Your task to perform on an android device: turn off location Image 0: 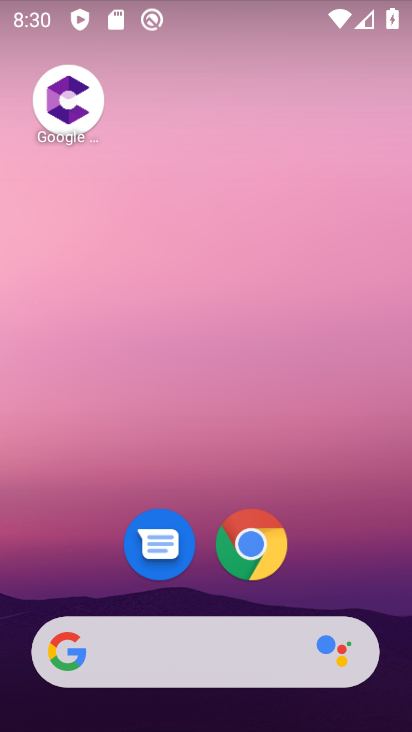
Step 0: drag from (310, 527) to (306, 9)
Your task to perform on an android device: turn off location Image 1: 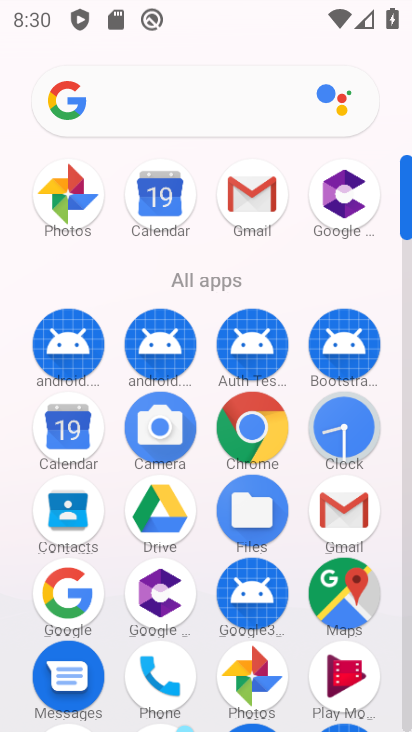
Step 1: drag from (207, 549) to (245, 153)
Your task to perform on an android device: turn off location Image 2: 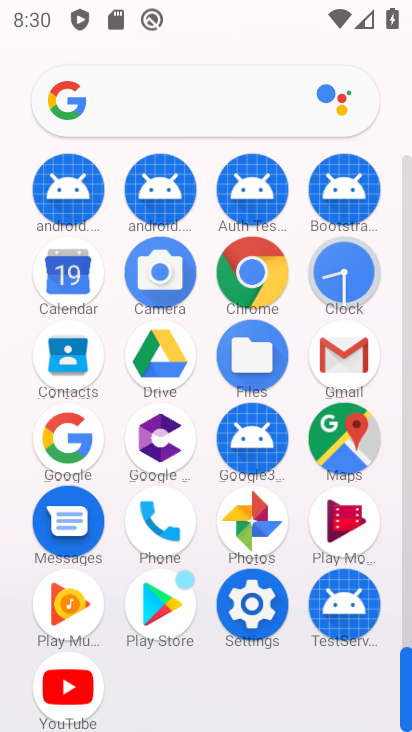
Step 2: click (254, 599)
Your task to perform on an android device: turn off location Image 3: 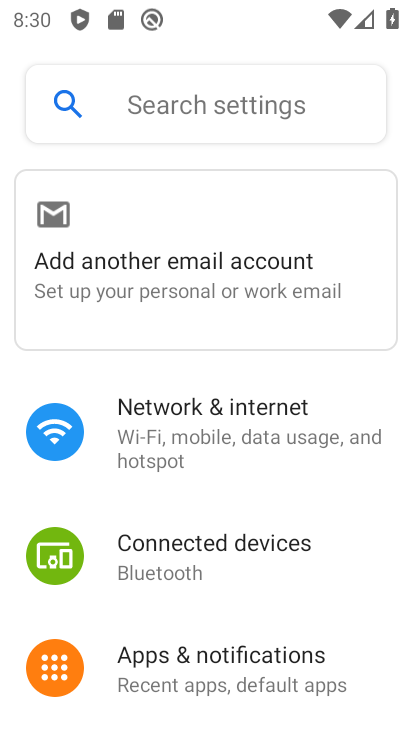
Step 3: drag from (252, 514) to (228, 186)
Your task to perform on an android device: turn off location Image 4: 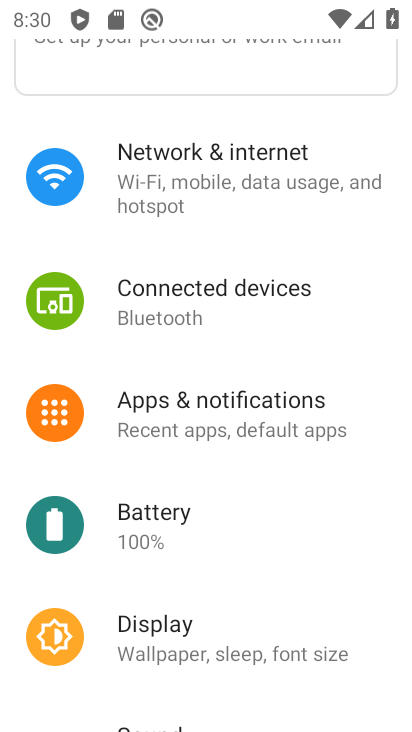
Step 4: drag from (231, 577) to (176, 146)
Your task to perform on an android device: turn off location Image 5: 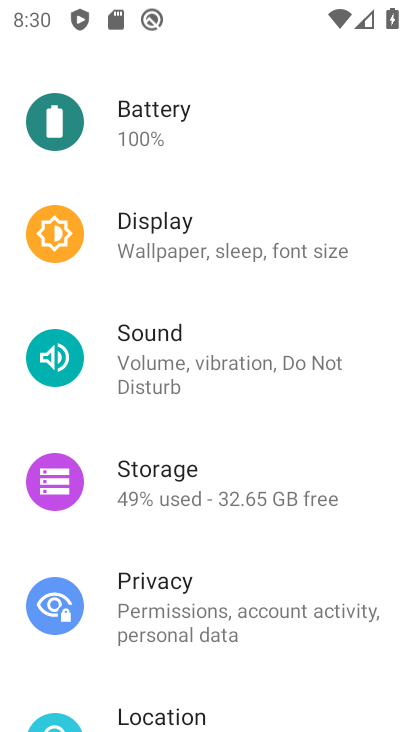
Step 5: drag from (181, 695) to (196, 319)
Your task to perform on an android device: turn off location Image 6: 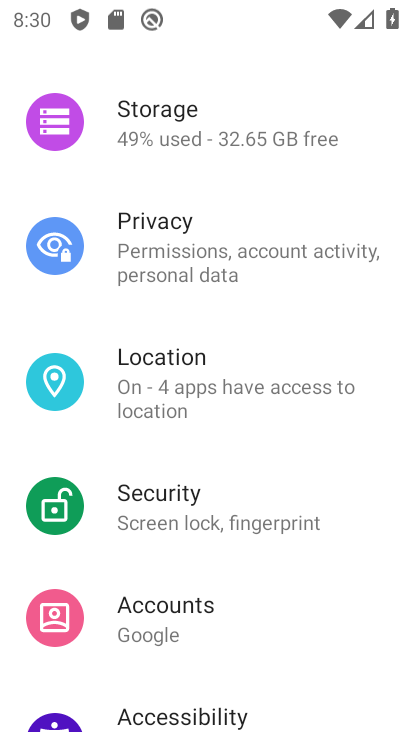
Step 6: click (131, 396)
Your task to perform on an android device: turn off location Image 7: 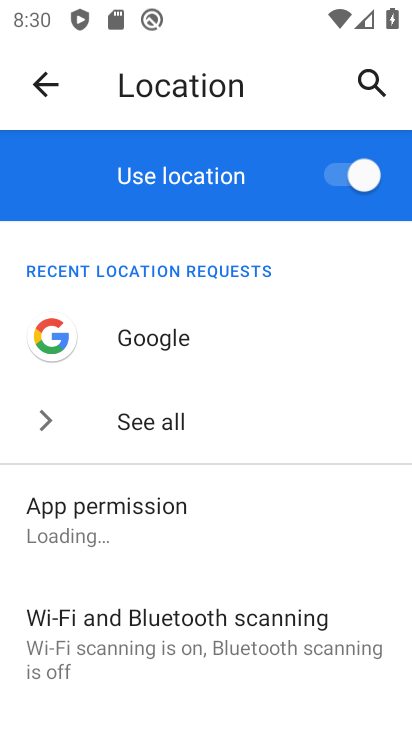
Step 7: click (330, 159)
Your task to perform on an android device: turn off location Image 8: 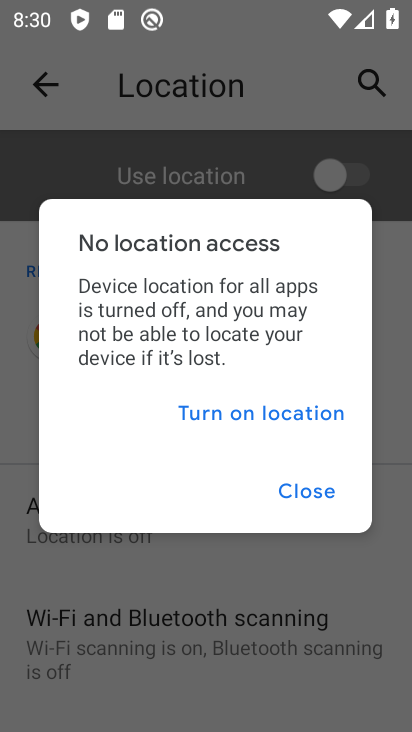
Step 8: task complete